Your task to perform on an android device: open app "Life360: Find Family & Friends" Image 0: 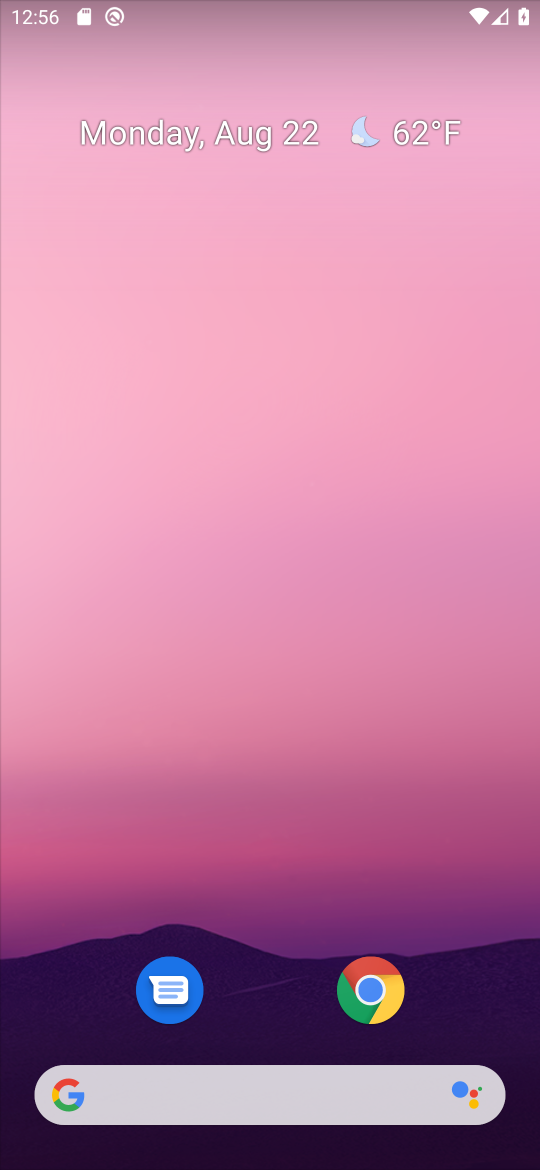
Step 0: drag from (296, 946) to (260, 284)
Your task to perform on an android device: open app "Life360: Find Family & Friends" Image 1: 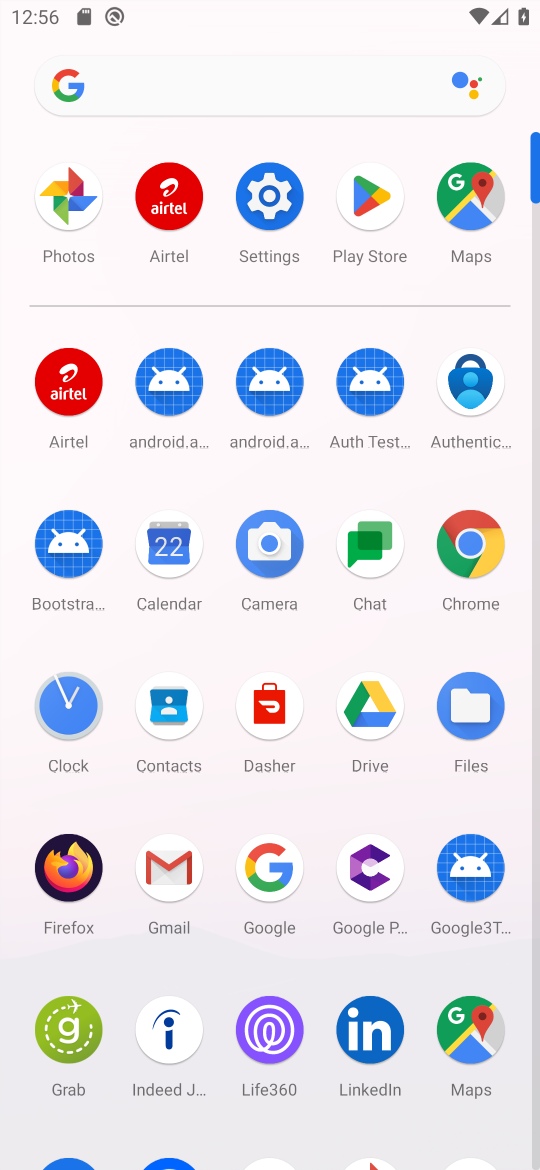
Step 1: click (347, 229)
Your task to perform on an android device: open app "Life360: Find Family & Friends" Image 2: 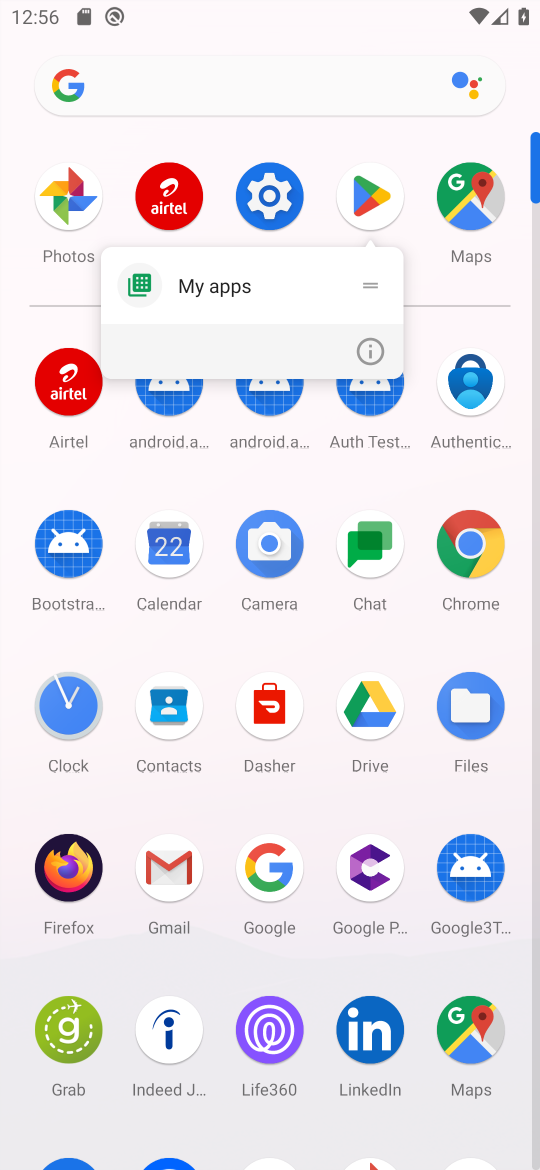
Step 2: click (366, 210)
Your task to perform on an android device: open app "Life360: Find Family & Friends" Image 3: 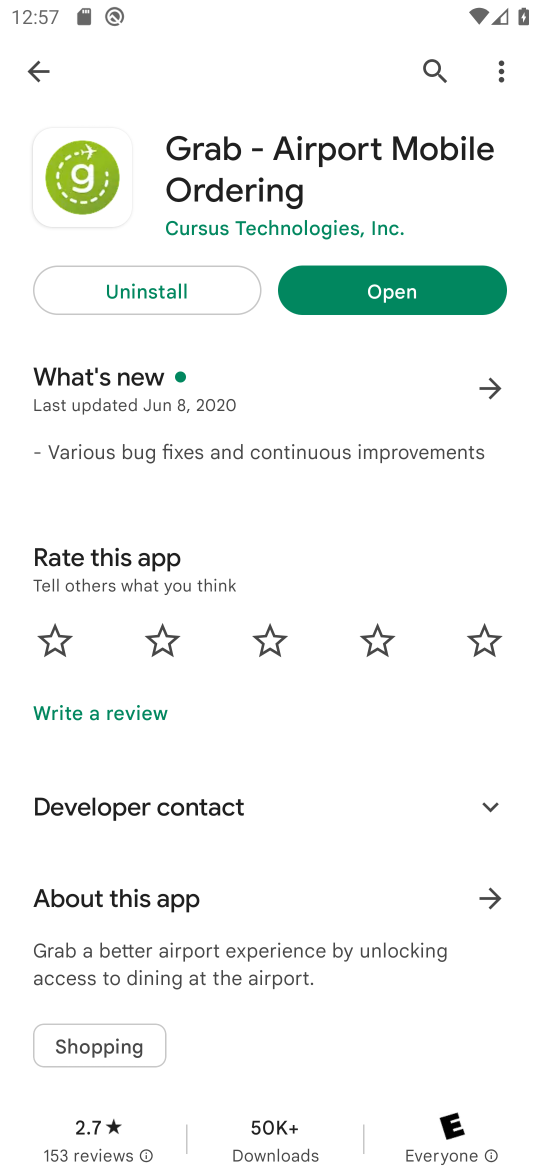
Step 3: click (426, 63)
Your task to perform on an android device: open app "Life360: Find Family & Friends" Image 4: 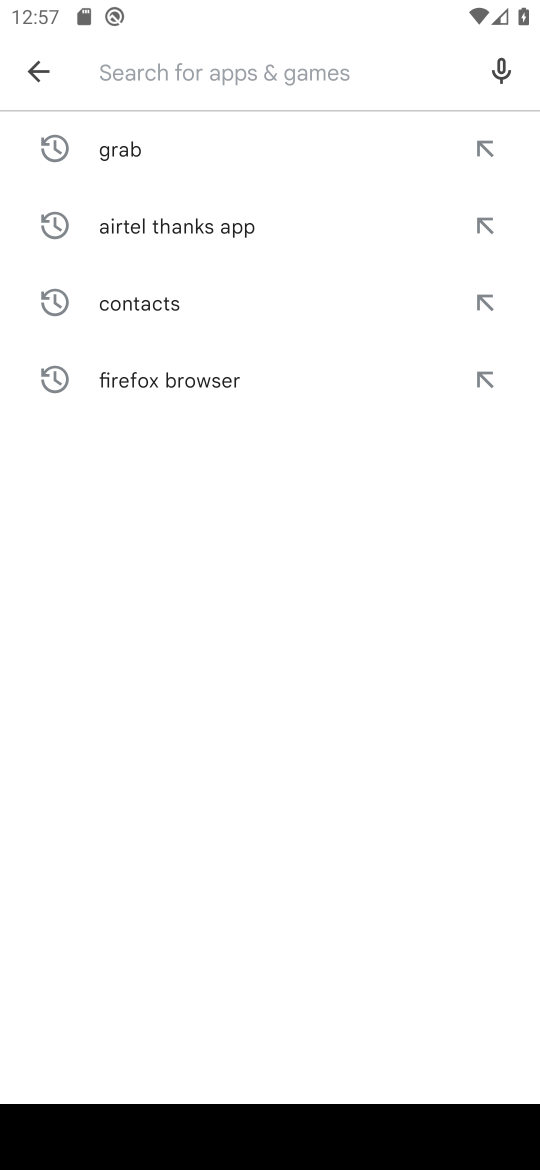
Step 4: type "Life360: Find Family & Friends"
Your task to perform on an android device: open app "Life360: Find Family & Friends" Image 5: 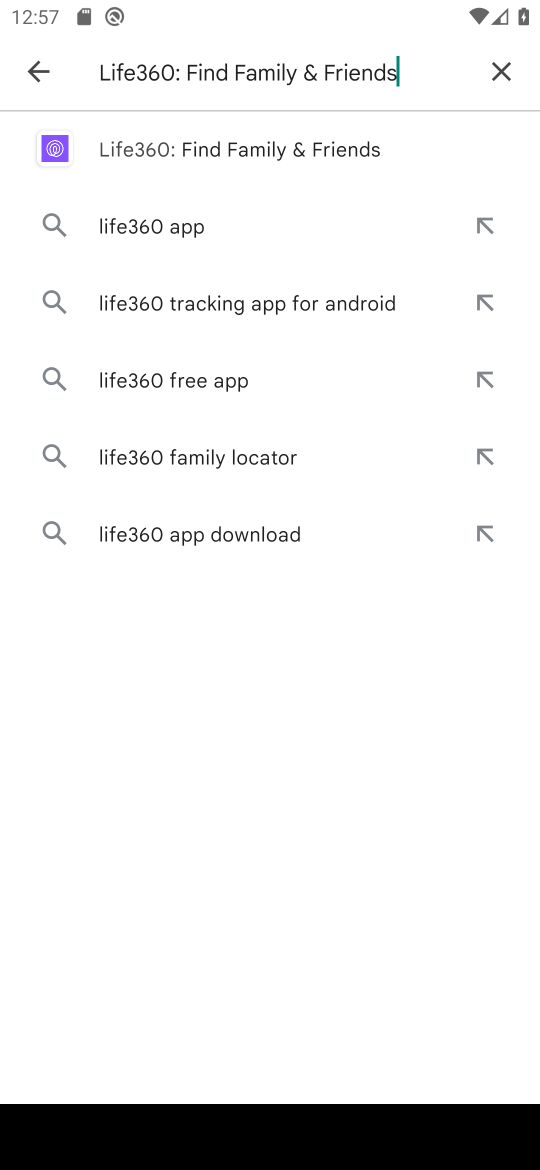
Step 5: type ""
Your task to perform on an android device: open app "Life360: Find Family & Friends" Image 6: 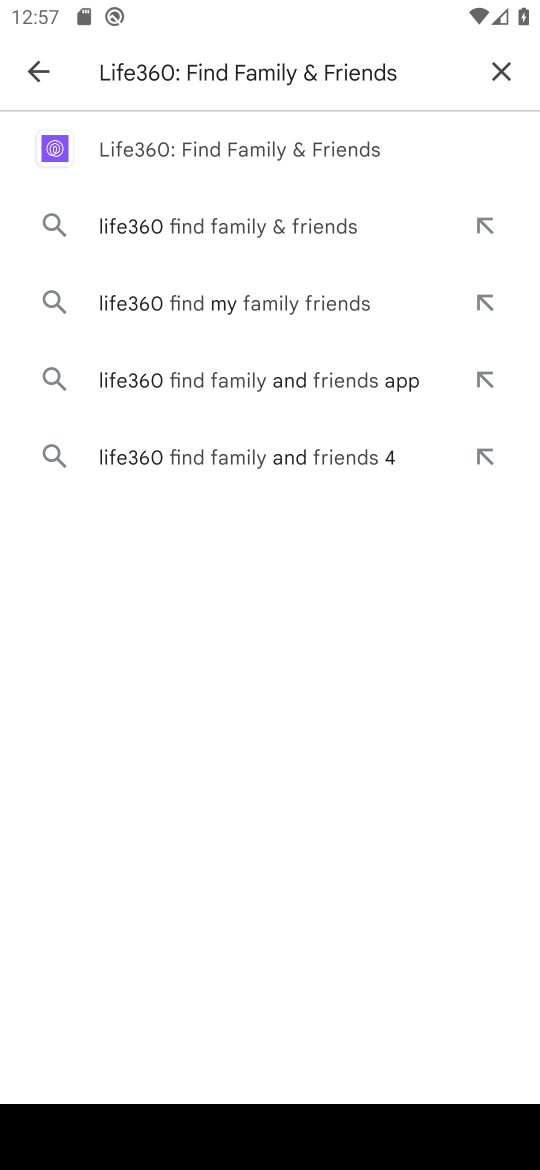
Step 6: click (380, 152)
Your task to perform on an android device: open app "Life360: Find Family & Friends" Image 7: 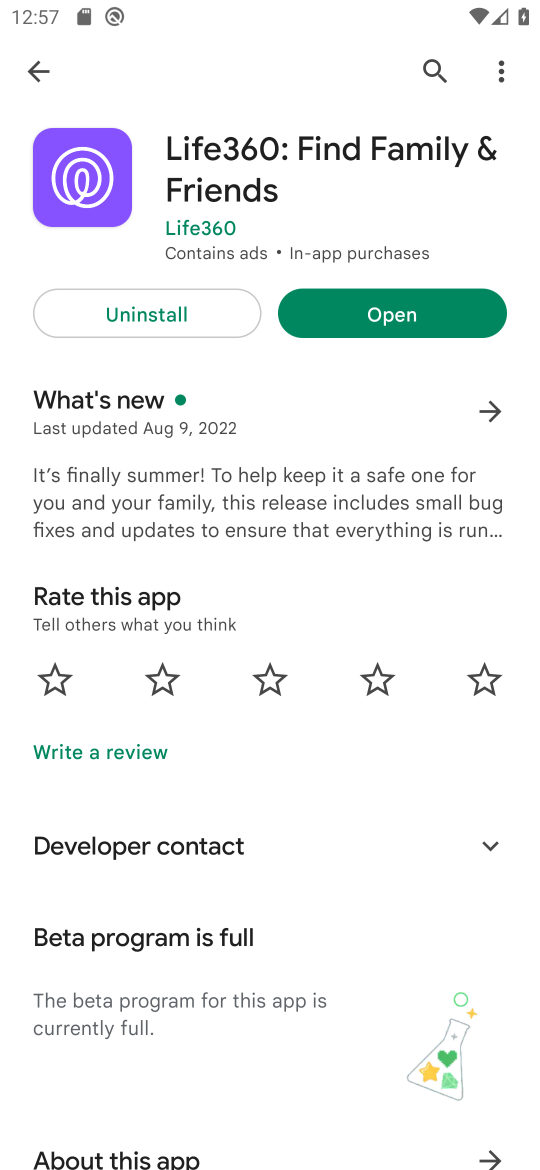
Step 7: click (386, 316)
Your task to perform on an android device: open app "Life360: Find Family & Friends" Image 8: 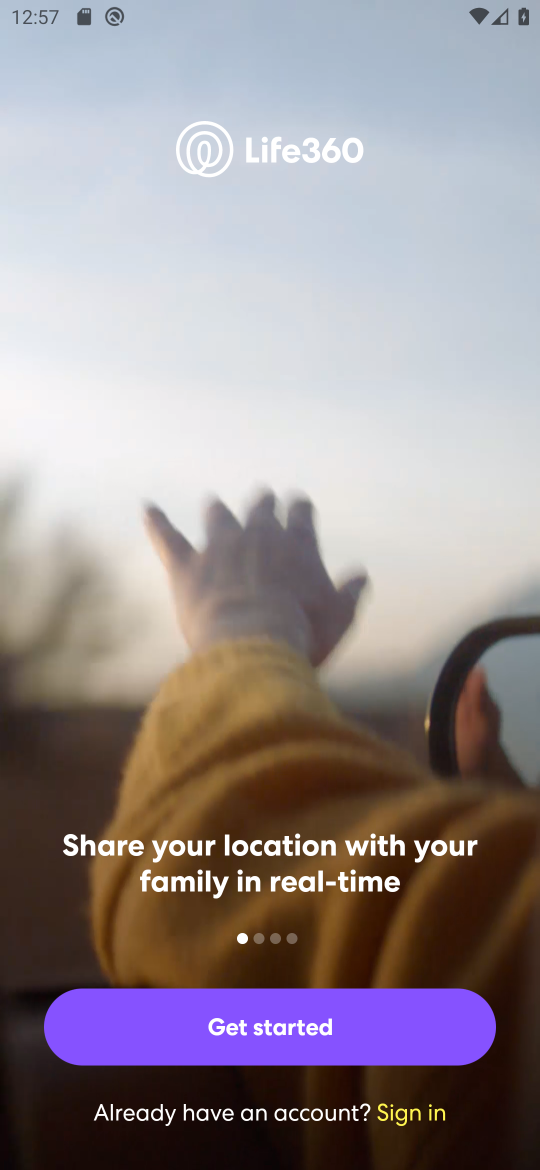
Step 8: task complete